Your task to perform on an android device: What's the weather going to be this weekend? Image 0: 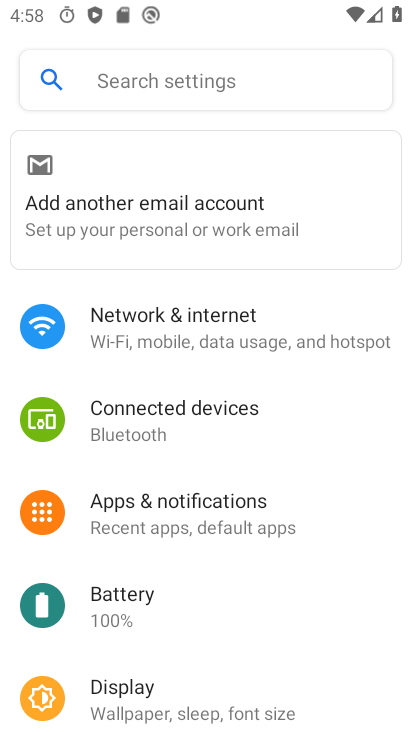
Step 0: press home button
Your task to perform on an android device: What's the weather going to be this weekend? Image 1: 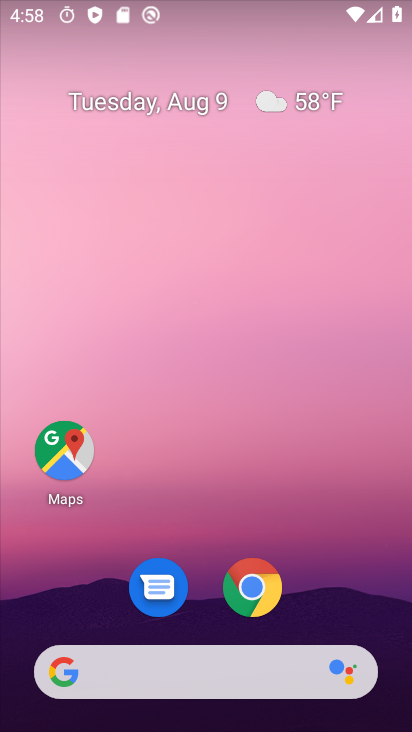
Step 1: click (281, 100)
Your task to perform on an android device: What's the weather going to be this weekend? Image 2: 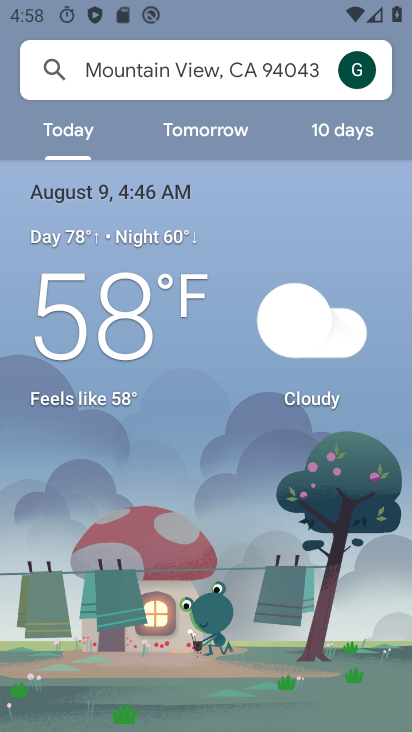
Step 2: click (329, 139)
Your task to perform on an android device: What's the weather going to be this weekend? Image 3: 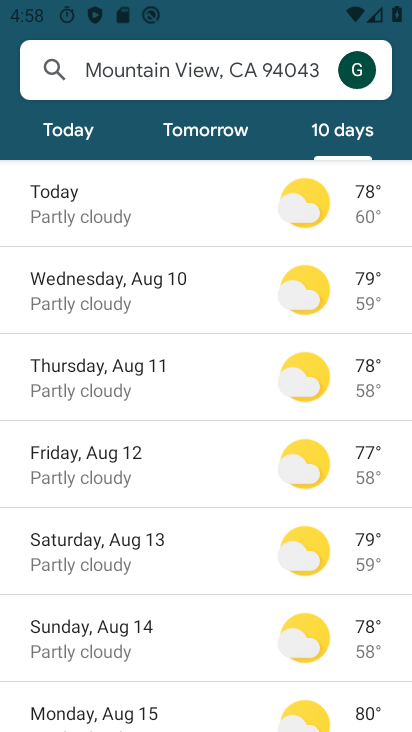
Step 3: task complete